Your task to perform on an android device: turn smart compose on in the gmail app Image 0: 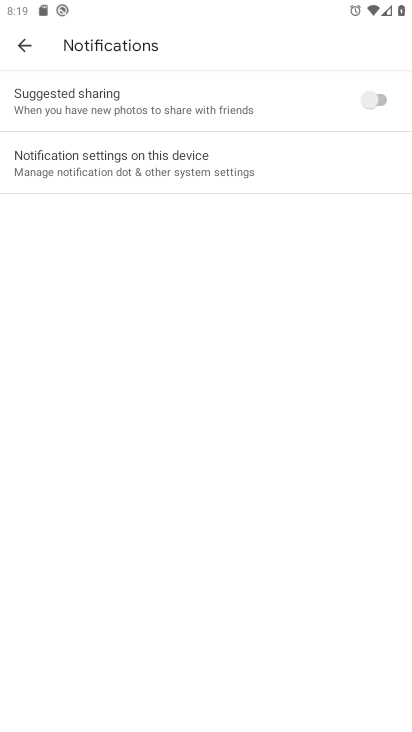
Step 0: press home button
Your task to perform on an android device: turn smart compose on in the gmail app Image 1: 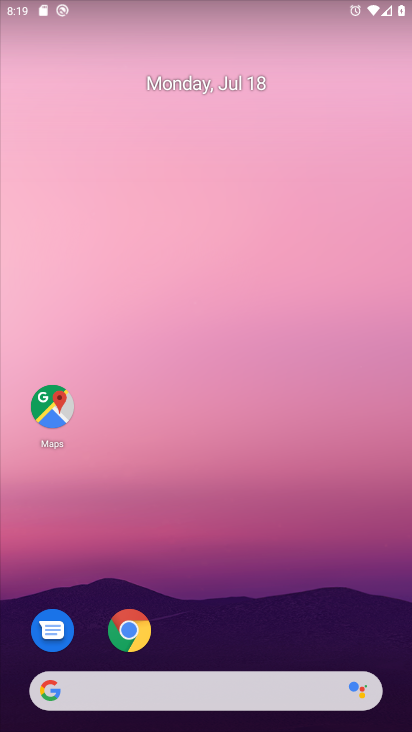
Step 1: drag from (192, 619) to (190, 28)
Your task to perform on an android device: turn smart compose on in the gmail app Image 2: 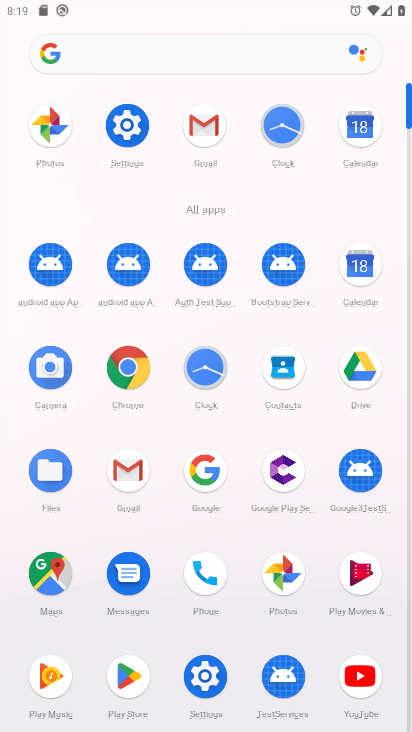
Step 2: click (199, 111)
Your task to perform on an android device: turn smart compose on in the gmail app Image 3: 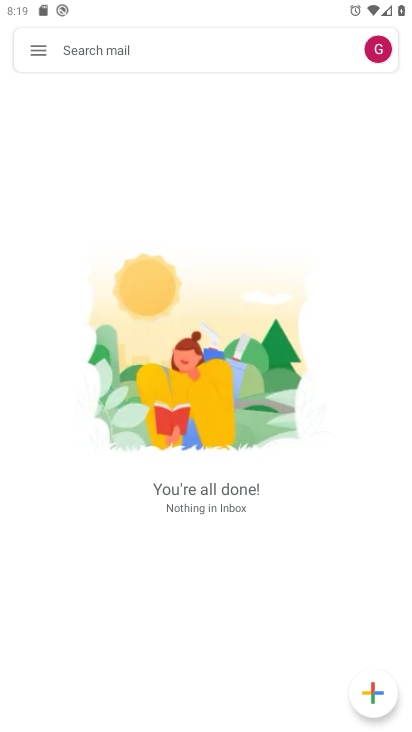
Step 3: click (31, 45)
Your task to perform on an android device: turn smart compose on in the gmail app Image 4: 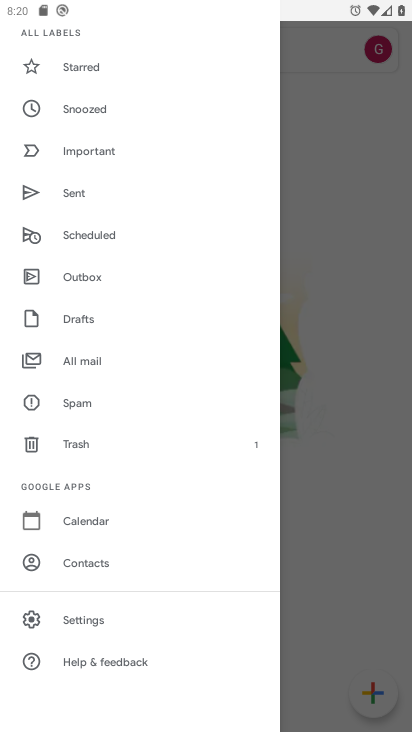
Step 4: click (93, 627)
Your task to perform on an android device: turn smart compose on in the gmail app Image 5: 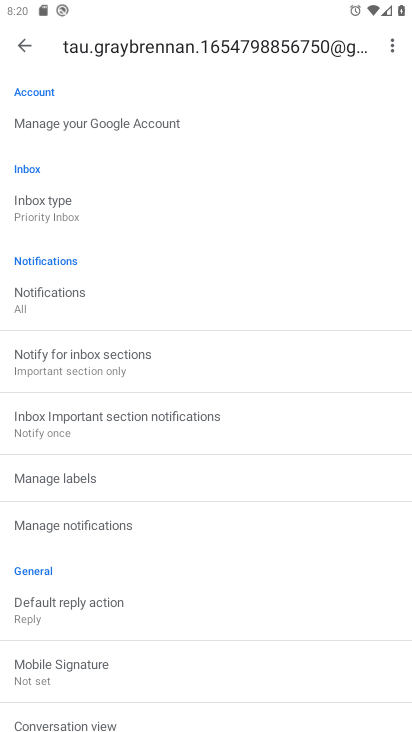
Step 5: task complete